Your task to perform on an android device: turn smart compose on in the gmail app Image 0: 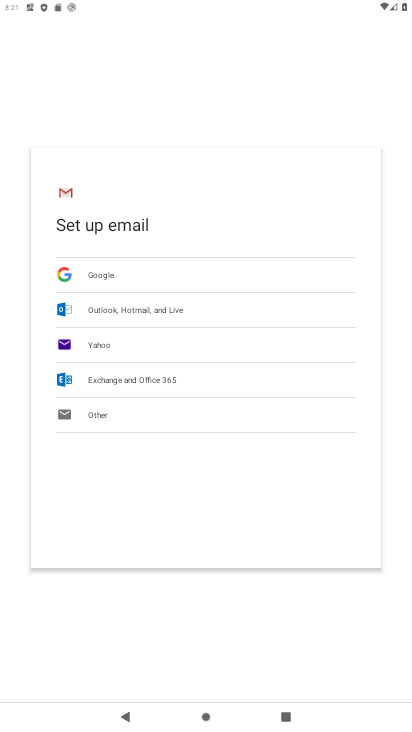
Step 0: press home button
Your task to perform on an android device: turn smart compose on in the gmail app Image 1: 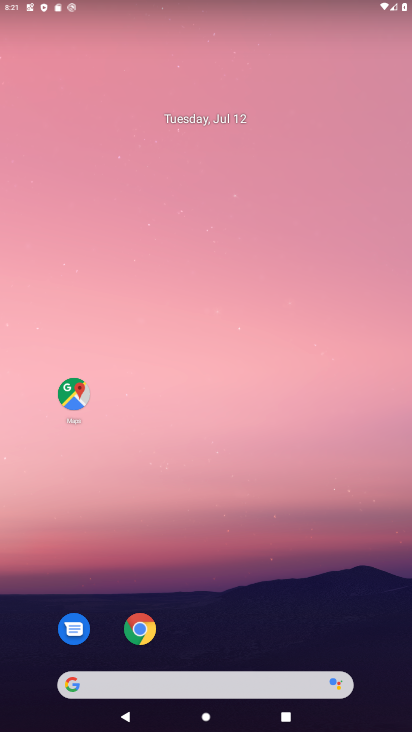
Step 1: drag from (239, 596) to (246, 209)
Your task to perform on an android device: turn smart compose on in the gmail app Image 2: 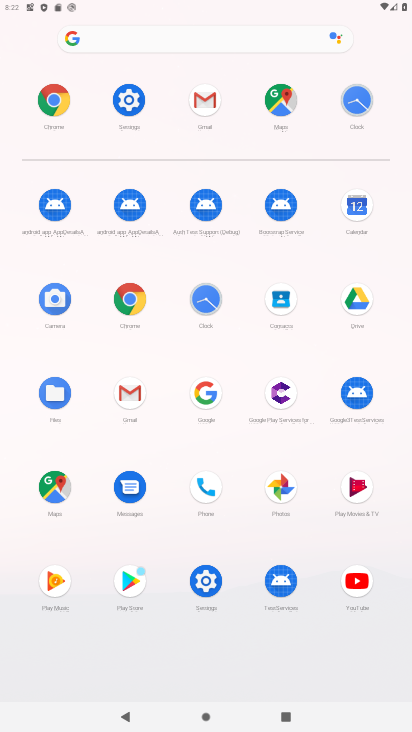
Step 2: click (209, 91)
Your task to perform on an android device: turn smart compose on in the gmail app Image 3: 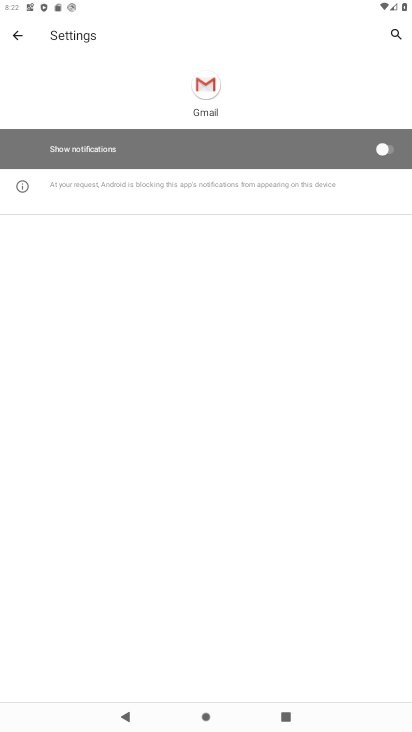
Step 3: click (22, 38)
Your task to perform on an android device: turn smart compose on in the gmail app Image 4: 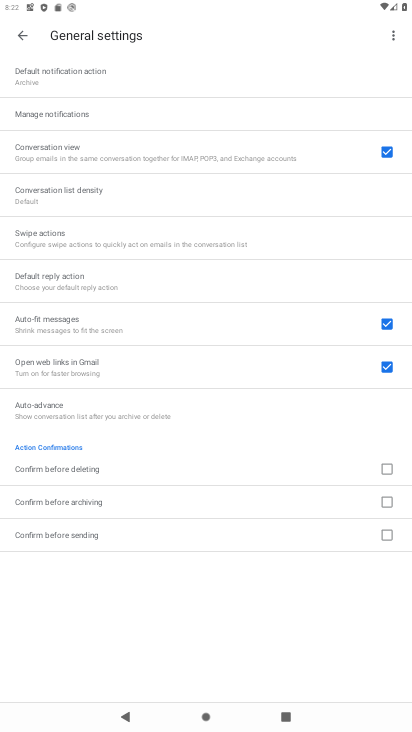
Step 4: click (24, 34)
Your task to perform on an android device: turn smart compose on in the gmail app Image 5: 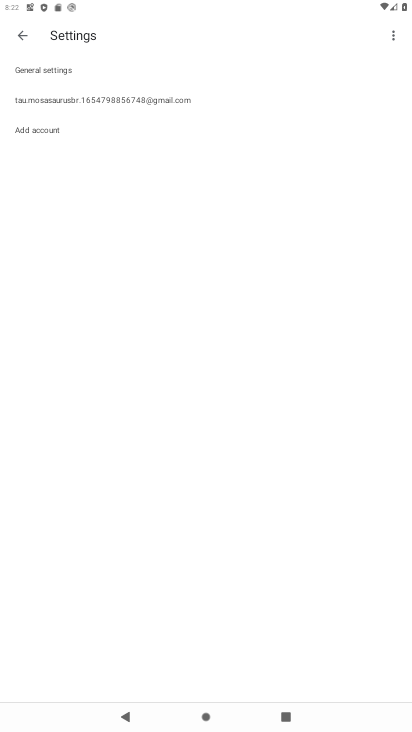
Step 5: click (87, 90)
Your task to perform on an android device: turn smart compose on in the gmail app Image 6: 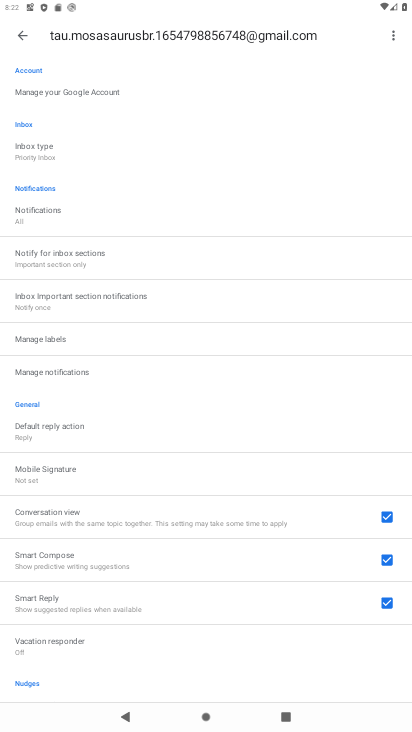
Step 6: task complete